Your task to perform on an android device: change timer sound Image 0: 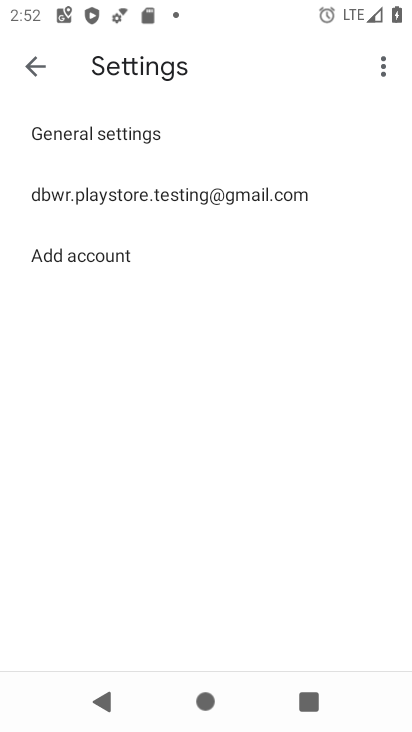
Step 0: press home button
Your task to perform on an android device: change timer sound Image 1: 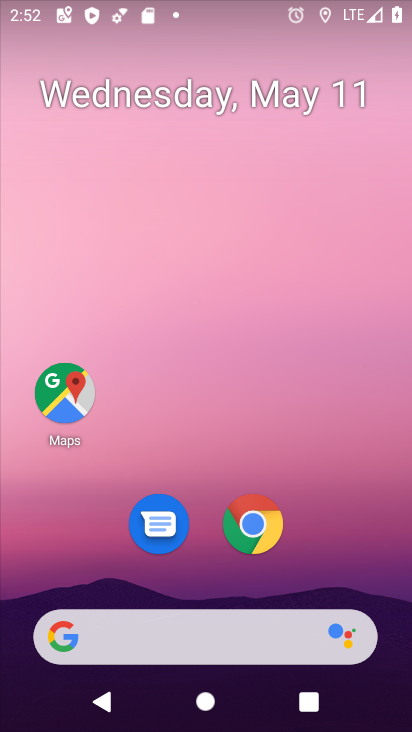
Step 1: drag from (318, 544) to (275, 53)
Your task to perform on an android device: change timer sound Image 2: 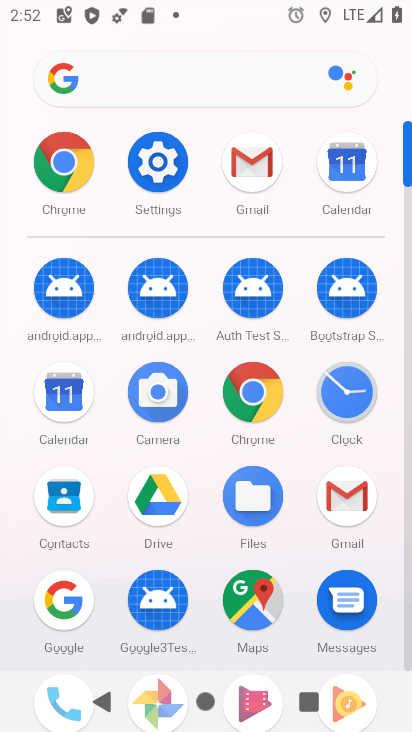
Step 2: click (357, 391)
Your task to perform on an android device: change timer sound Image 3: 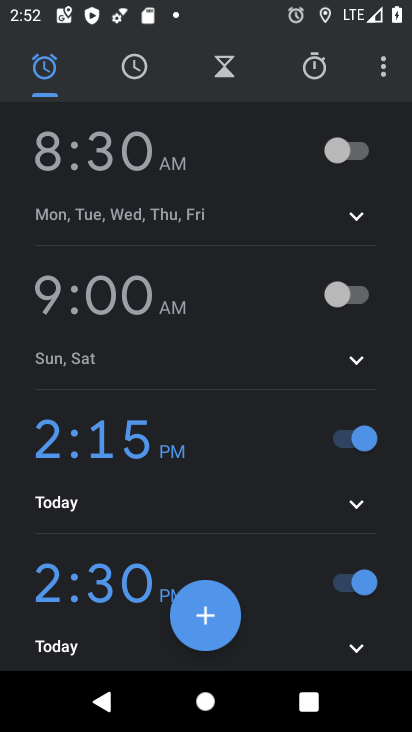
Step 3: click (376, 68)
Your task to perform on an android device: change timer sound Image 4: 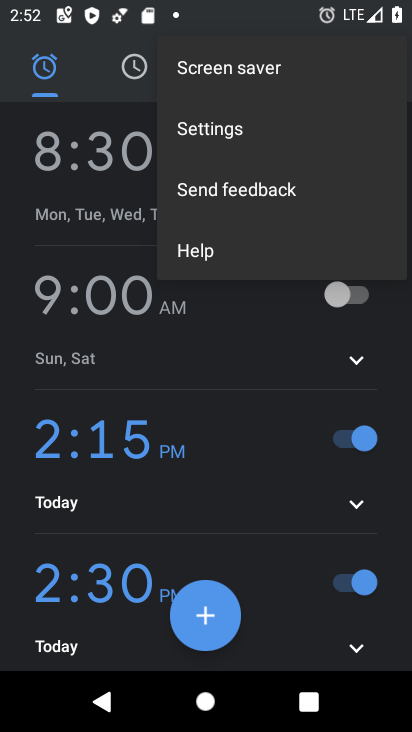
Step 4: click (291, 128)
Your task to perform on an android device: change timer sound Image 5: 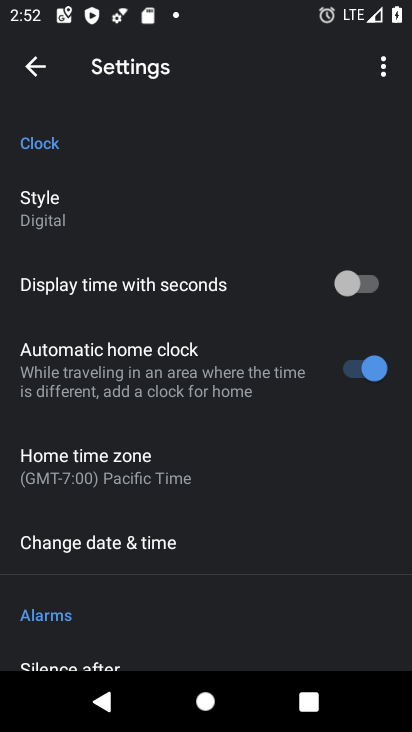
Step 5: drag from (231, 491) to (194, 125)
Your task to perform on an android device: change timer sound Image 6: 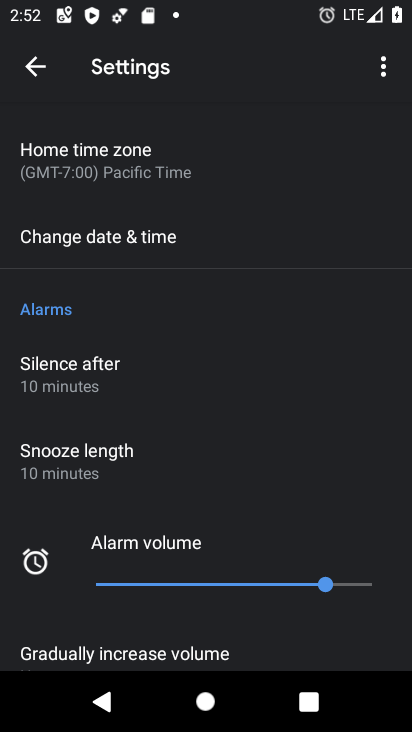
Step 6: drag from (207, 410) to (225, 99)
Your task to perform on an android device: change timer sound Image 7: 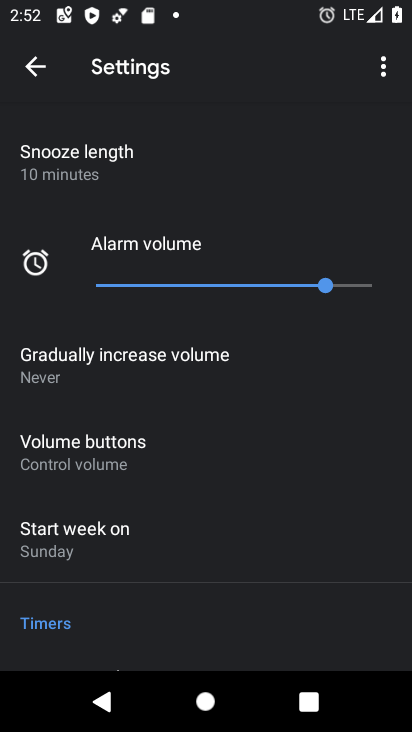
Step 7: drag from (248, 503) to (242, 168)
Your task to perform on an android device: change timer sound Image 8: 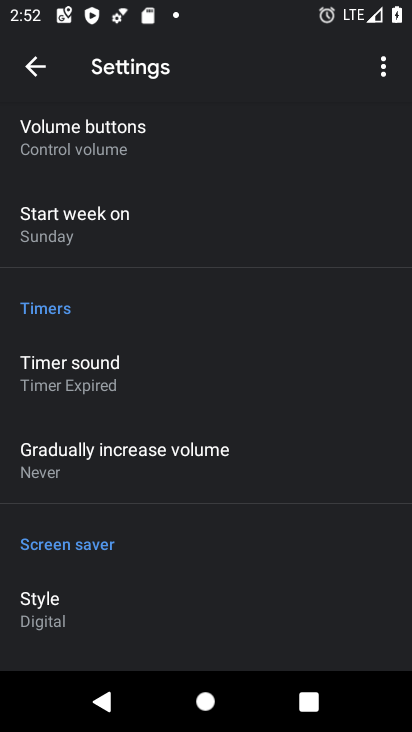
Step 8: click (137, 380)
Your task to perform on an android device: change timer sound Image 9: 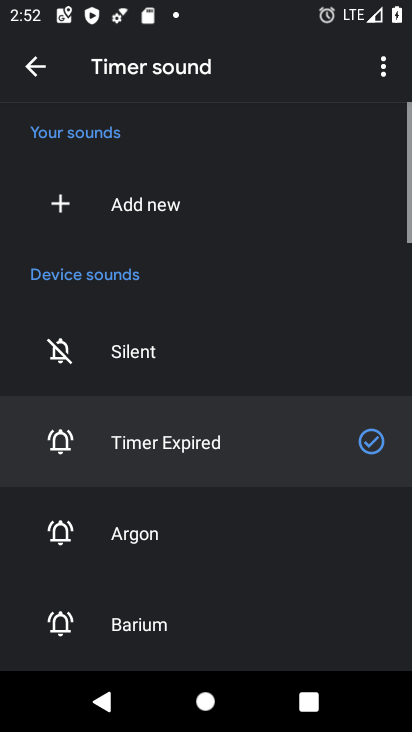
Step 9: click (126, 543)
Your task to perform on an android device: change timer sound Image 10: 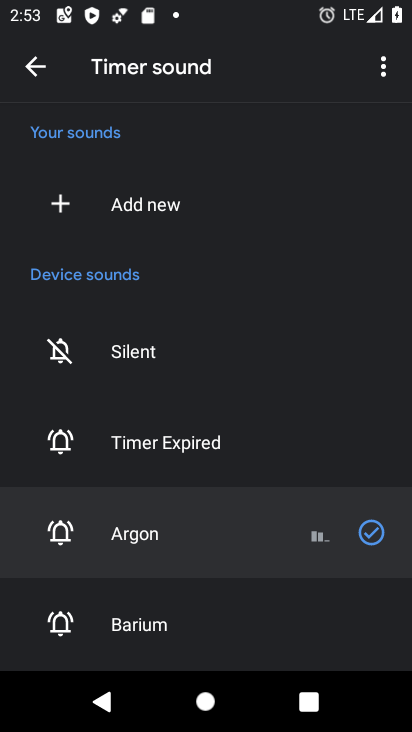
Step 10: task complete